Your task to perform on an android device: Show me the alarms in the clock app Image 0: 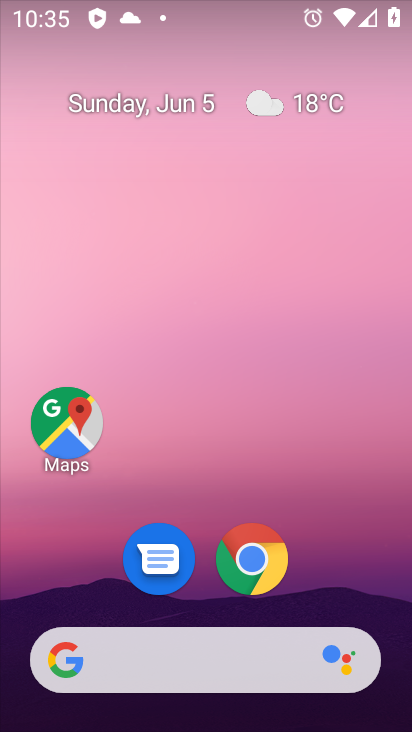
Step 0: drag from (377, 422) to (373, 298)
Your task to perform on an android device: Show me the alarms in the clock app Image 1: 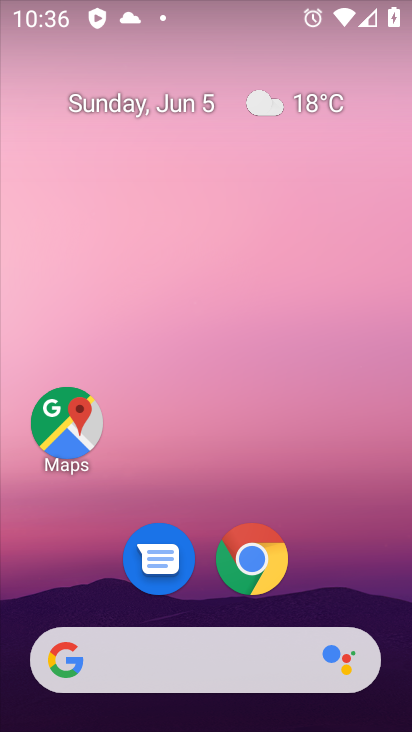
Step 1: drag from (352, 535) to (326, 127)
Your task to perform on an android device: Show me the alarms in the clock app Image 2: 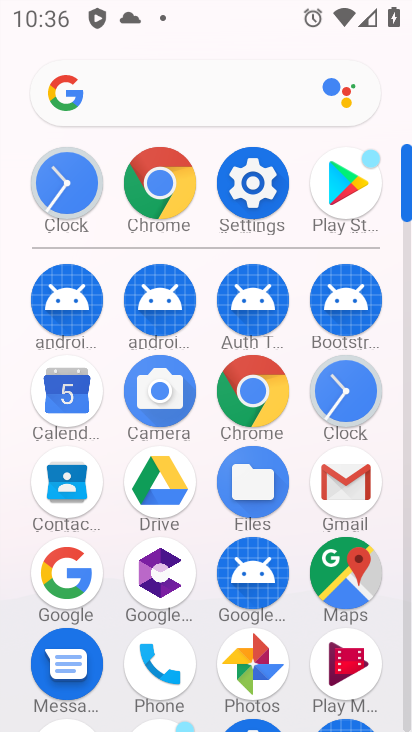
Step 2: click (343, 410)
Your task to perform on an android device: Show me the alarms in the clock app Image 3: 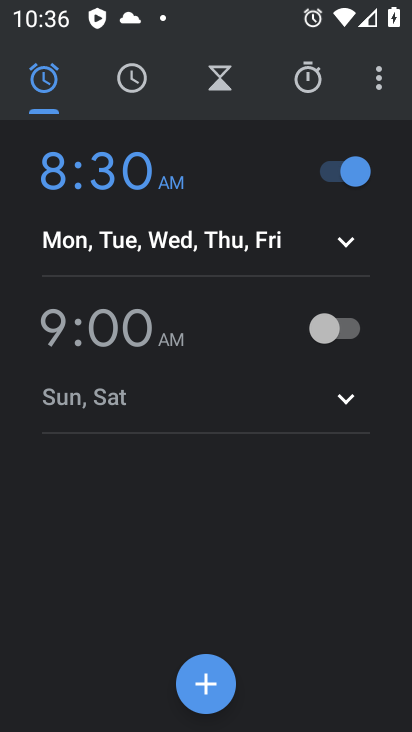
Step 3: task complete